Your task to perform on an android device: empty trash in the gmail app Image 0: 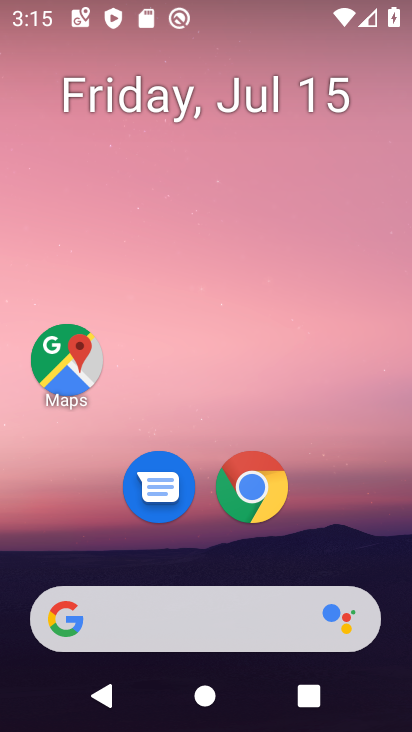
Step 0: press home button
Your task to perform on an android device: empty trash in the gmail app Image 1: 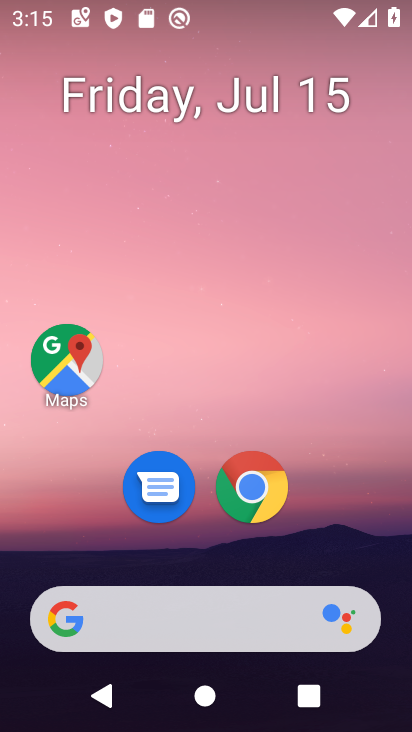
Step 1: drag from (227, 601) to (246, 176)
Your task to perform on an android device: empty trash in the gmail app Image 2: 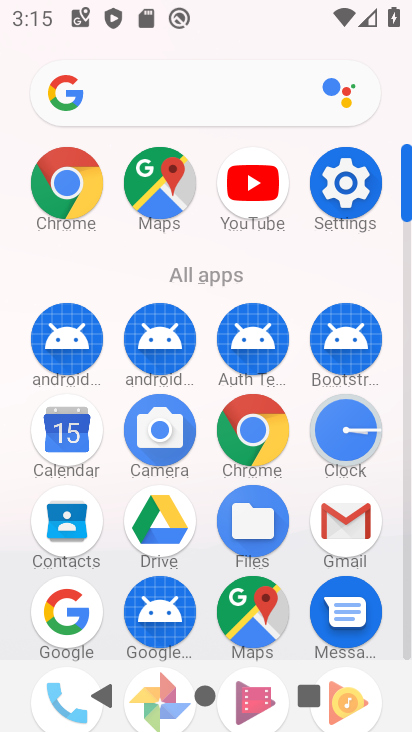
Step 2: click (336, 546)
Your task to perform on an android device: empty trash in the gmail app Image 3: 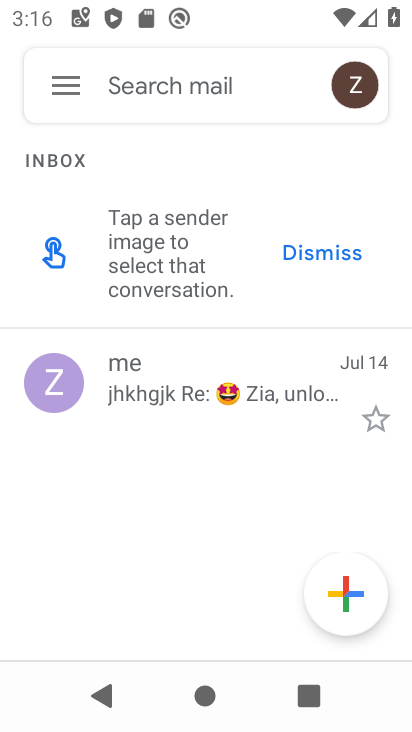
Step 3: click (51, 93)
Your task to perform on an android device: empty trash in the gmail app Image 4: 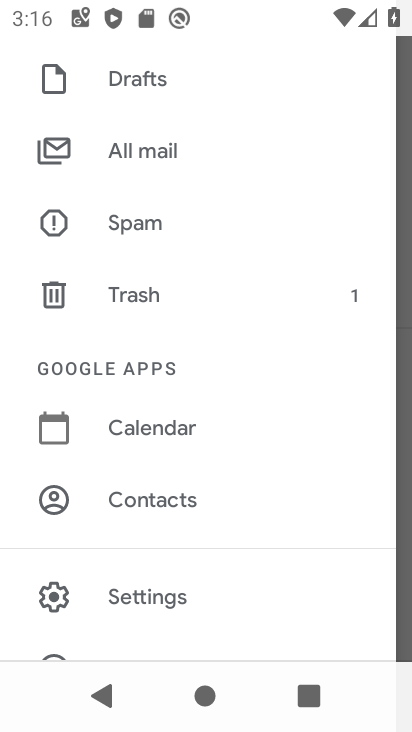
Step 4: drag from (129, 572) to (138, 501)
Your task to perform on an android device: empty trash in the gmail app Image 5: 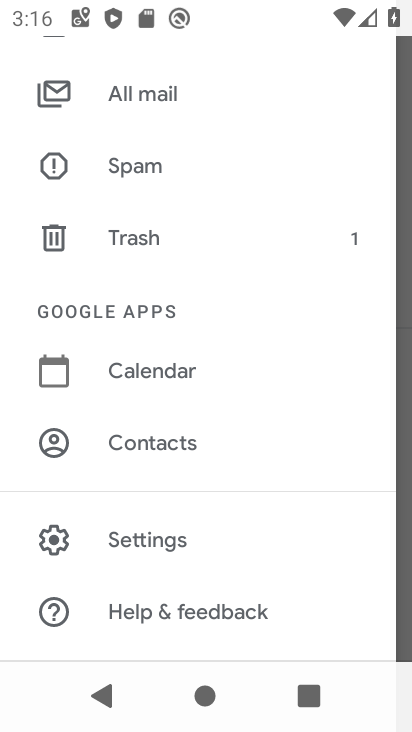
Step 5: click (132, 249)
Your task to perform on an android device: empty trash in the gmail app Image 6: 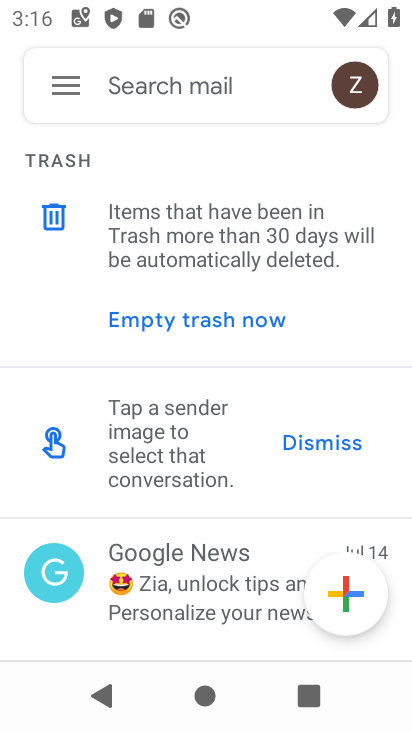
Step 6: click (201, 327)
Your task to perform on an android device: empty trash in the gmail app Image 7: 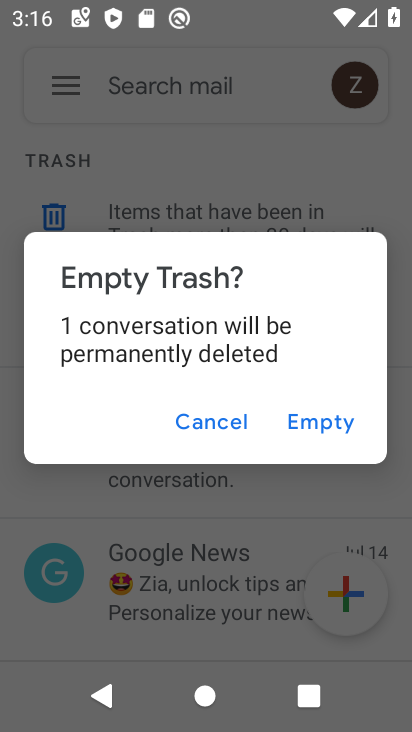
Step 7: click (332, 422)
Your task to perform on an android device: empty trash in the gmail app Image 8: 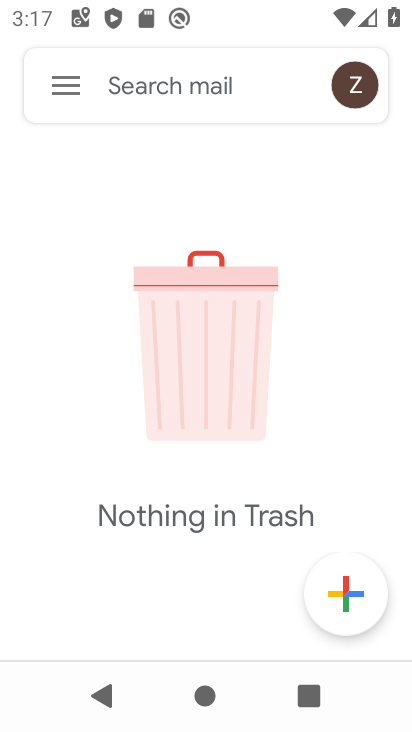
Step 8: task complete